Your task to perform on an android device: find photos in the google photos app Image 0: 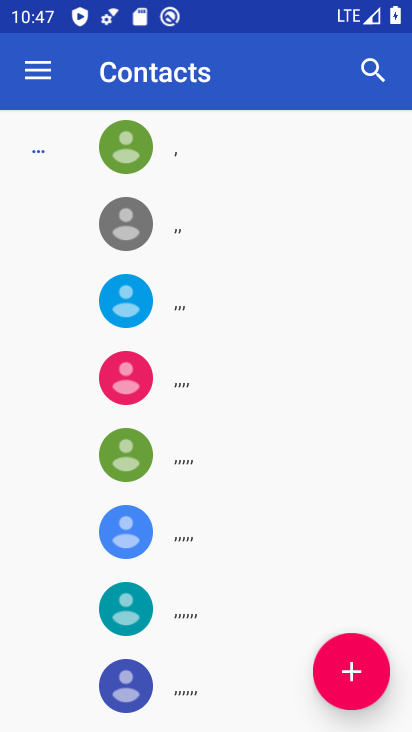
Step 0: press home button
Your task to perform on an android device: find photos in the google photos app Image 1: 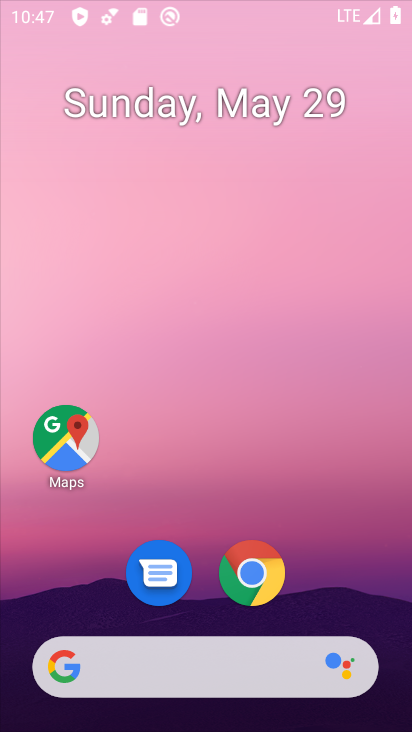
Step 1: drag from (312, 605) to (135, 56)
Your task to perform on an android device: find photos in the google photos app Image 2: 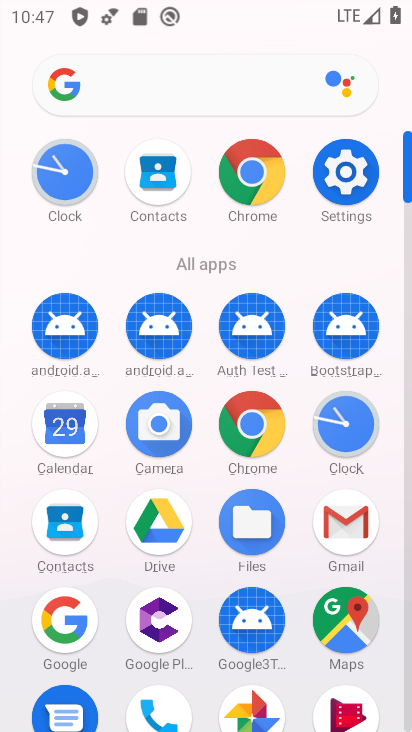
Step 2: click (254, 705)
Your task to perform on an android device: find photos in the google photos app Image 3: 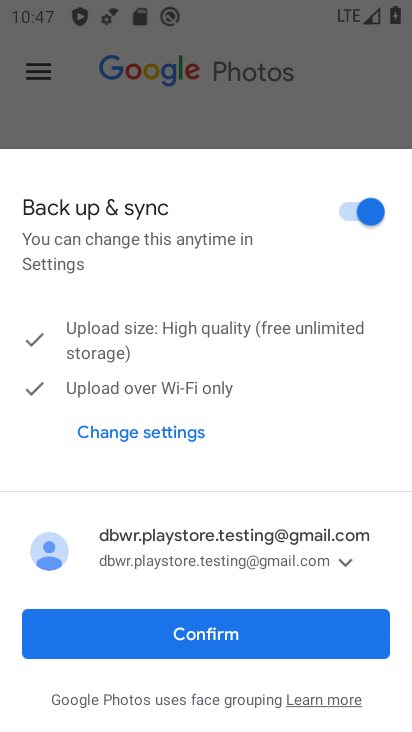
Step 3: click (188, 631)
Your task to perform on an android device: find photos in the google photos app Image 4: 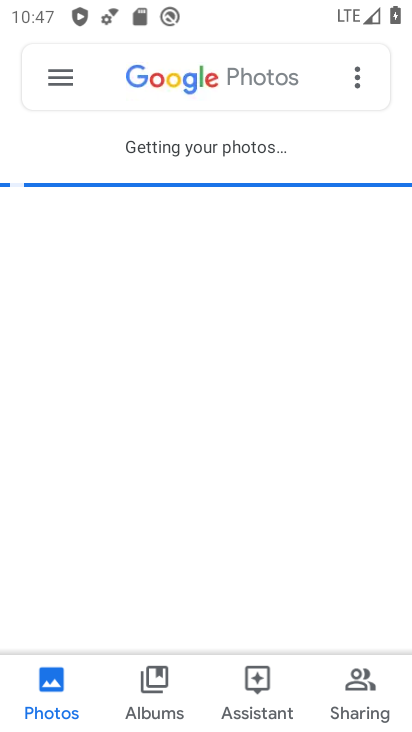
Step 4: click (38, 86)
Your task to perform on an android device: find photos in the google photos app Image 5: 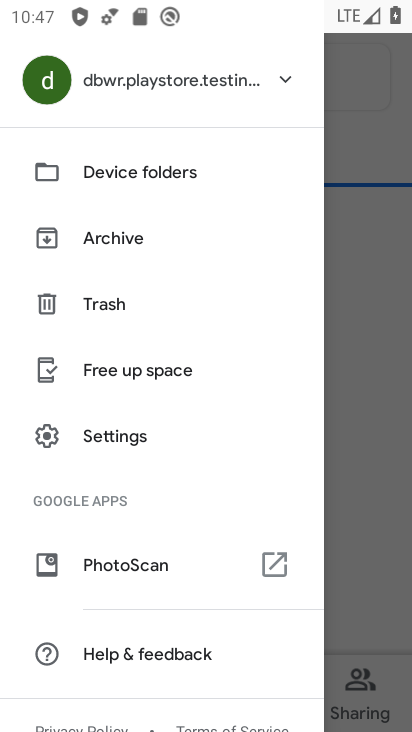
Step 5: click (391, 366)
Your task to perform on an android device: find photos in the google photos app Image 6: 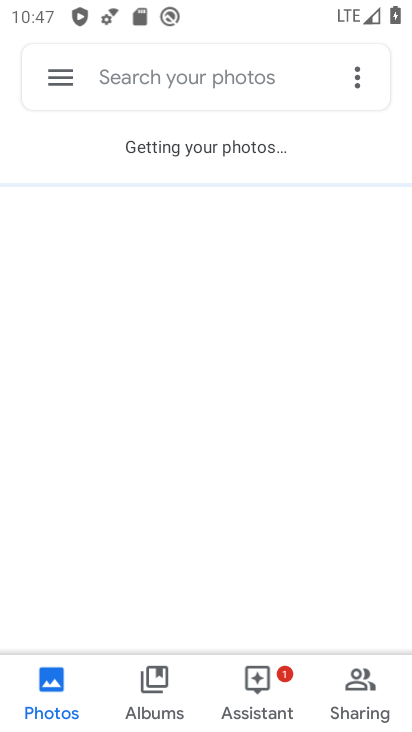
Step 6: task complete